Your task to perform on an android device: change notifications settings Image 0: 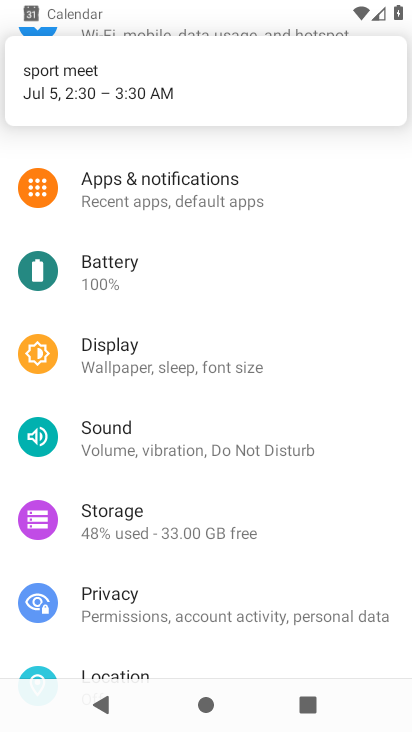
Step 0: drag from (331, 584) to (320, 363)
Your task to perform on an android device: change notifications settings Image 1: 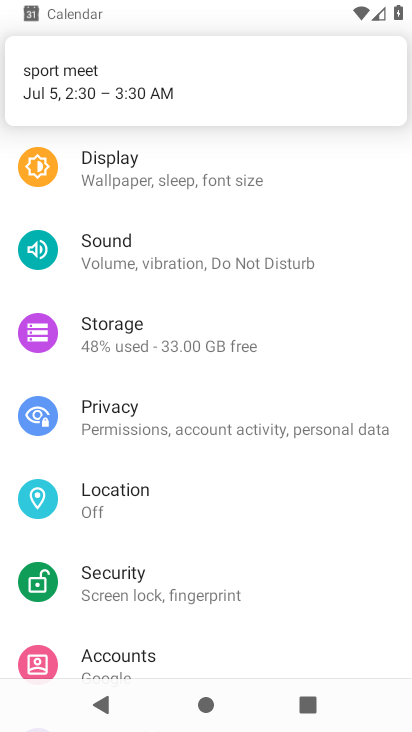
Step 1: drag from (335, 548) to (336, 361)
Your task to perform on an android device: change notifications settings Image 2: 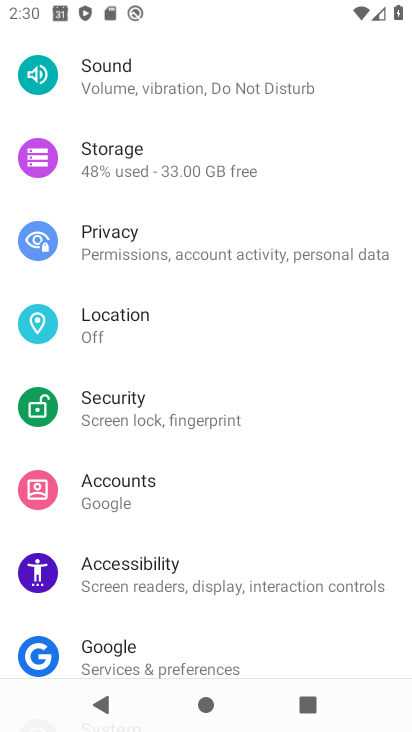
Step 2: drag from (311, 628) to (327, 408)
Your task to perform on an android device: change notifications settings Image 3: 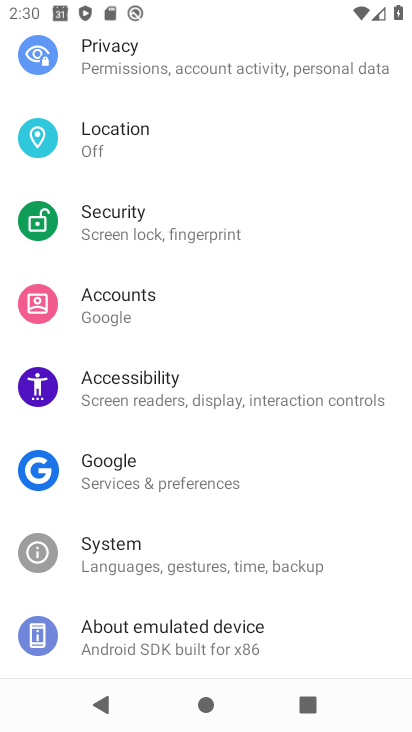
Step 3: drag from (345, 603) to (351, 384)
Your task to perform on an android device: change notifications settings Image 4: 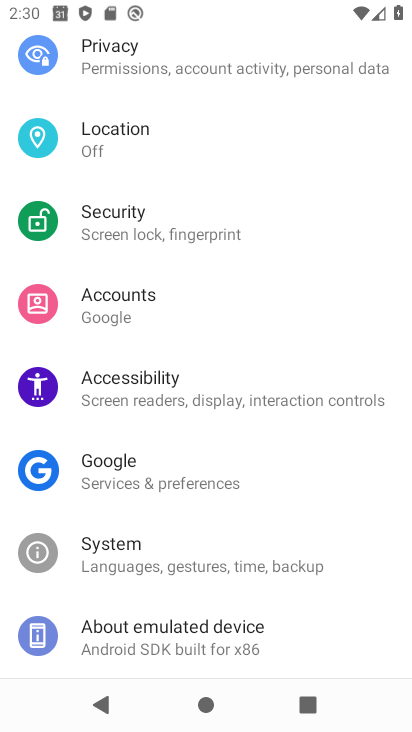
Step 4: drag from (342, 619) to (342, 401)
Your task to perform on an android device: change notifications settings Image 5: 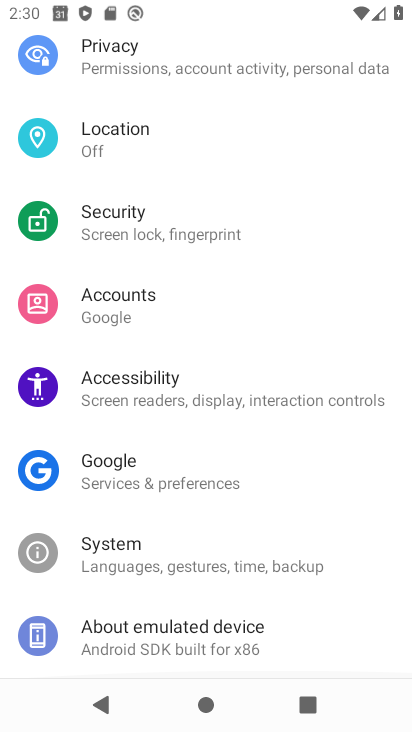
Step 5: drag from (333, 286) to (334, 369)
Your task to perform on an android device: change notifications settings Image 6: 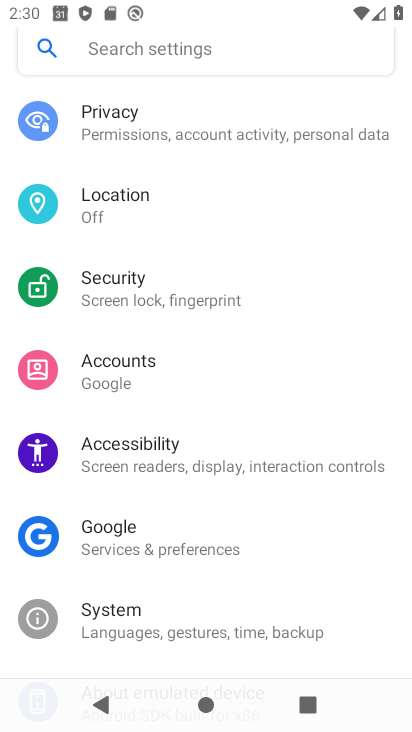
Step 6: drag from (327, 290) to (341, 413)
Your task to perform on an android device: change notifications settings Image 7: 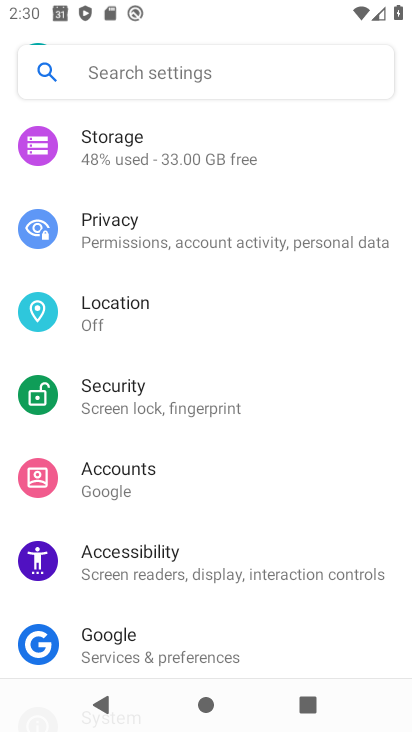
Step 7: drag from (322, 298) to (340, 407)
Your task to perform on an android device: change notifications settings Image 8: 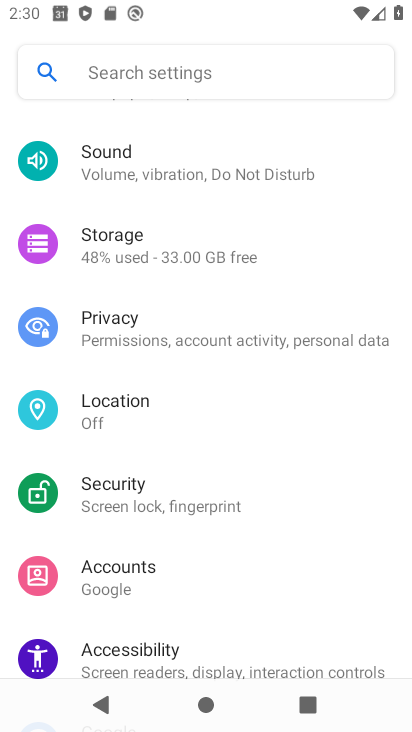
Step 8: drag from (343, 297) to (360, 400)
Your task to perform on an android device: change notifications settings Image 9: 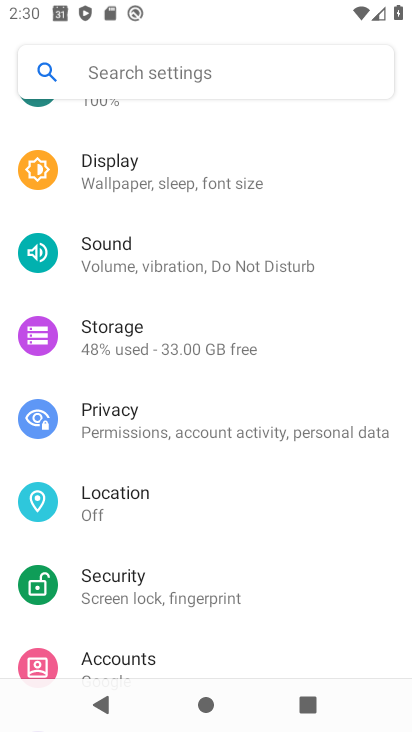
Step 9: drag from (345, 279) to (349, 386)
Your task to perform on an android device: change notifications settings Image 10: 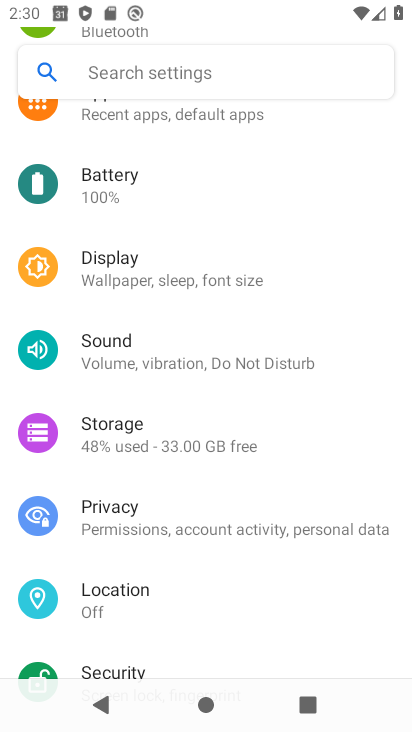
Step 10: drag from (339, 262) to (345, 363)
Your task to perform on an android device: change notifications settings Image 11: 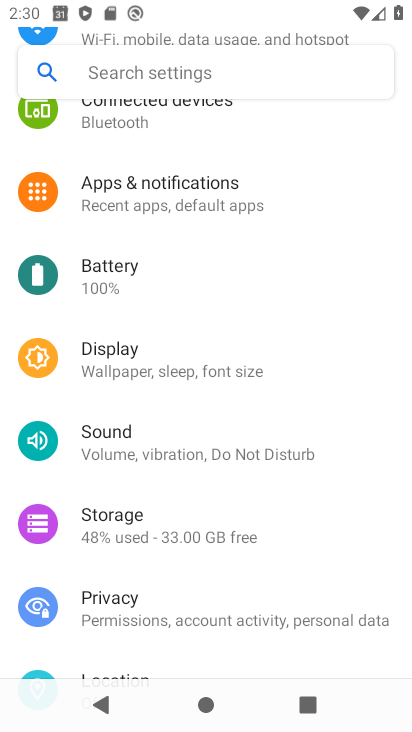
Step 11: drag from (346, 257) to (363, 376)
Your task to perform on an android device: change notifications settings Image 12: 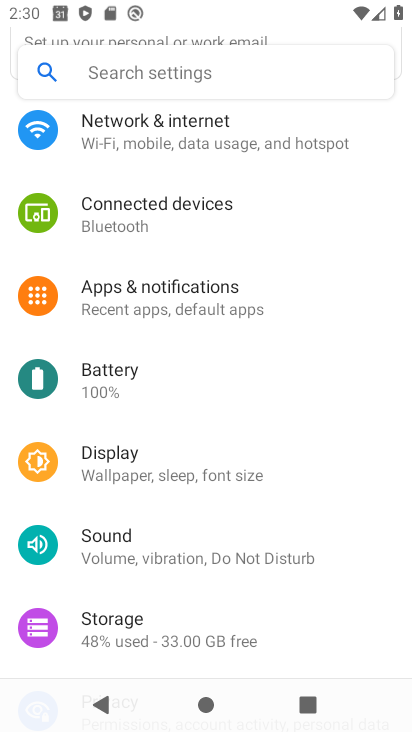
Step 12: drag from (345, 260) to (359, 365)
Your task to perform on an android device: change notifications settings Image 13: 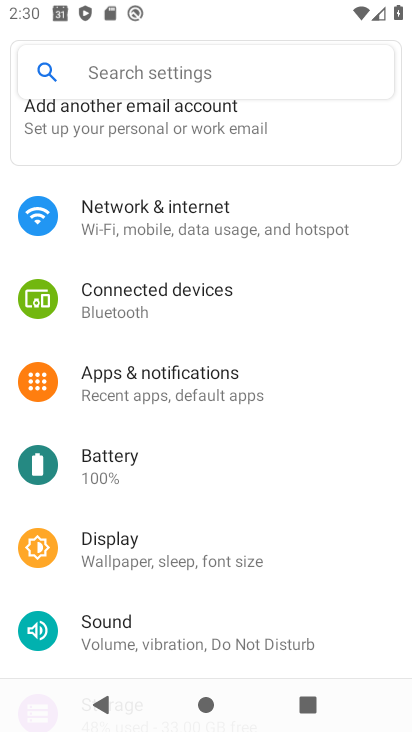
Step 13: click (254, 391)
Your task to perform on an android device: change notifications settings Image 14: 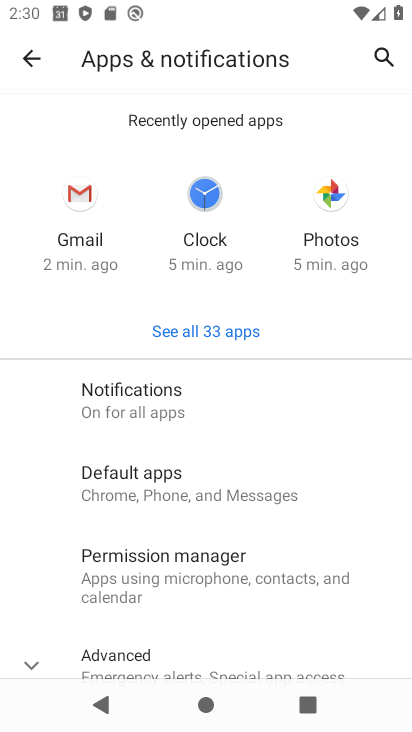
Step 14: click (183, 414)
Your task to perform on an android device: change notifications settings Image 15: 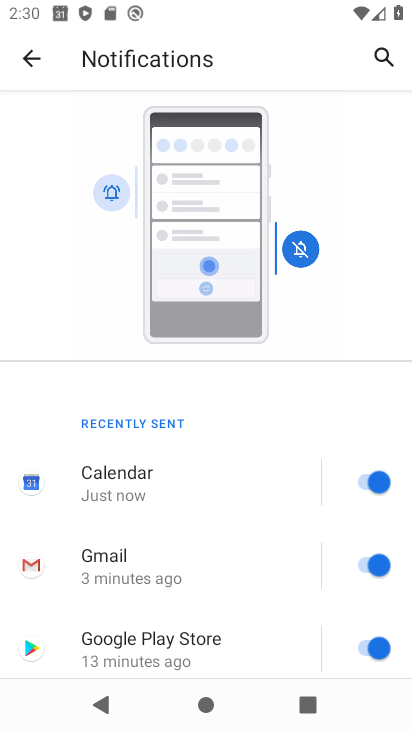
Step 15: drag from (252, 552) to (253, 362)
Your task to perform on an android device: change notifications settings Image 16: 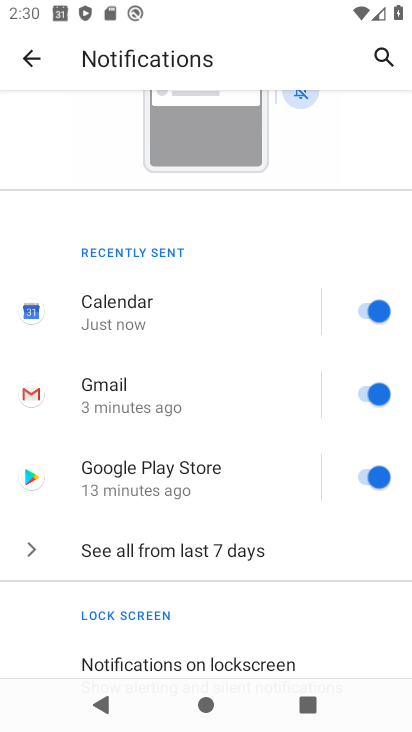
Step 16: drag from (282, 600) to (278, 418)
Your task to perform on an android device: change notifications settings Image 17: 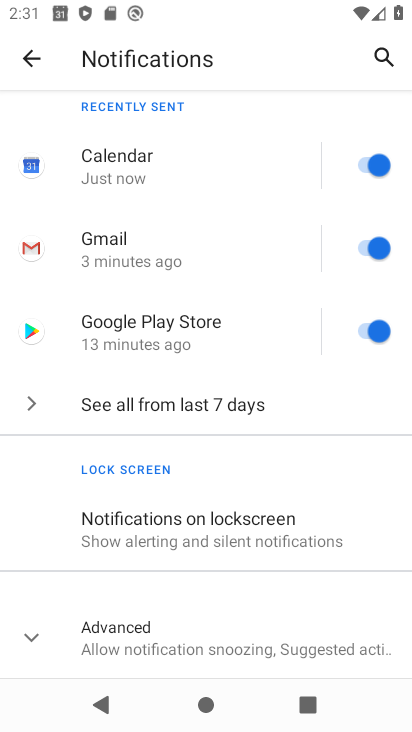
Step 17: drag from (257, 295) to (273, 504)
Your task to perform on an android device: change notifications settings Image 18: 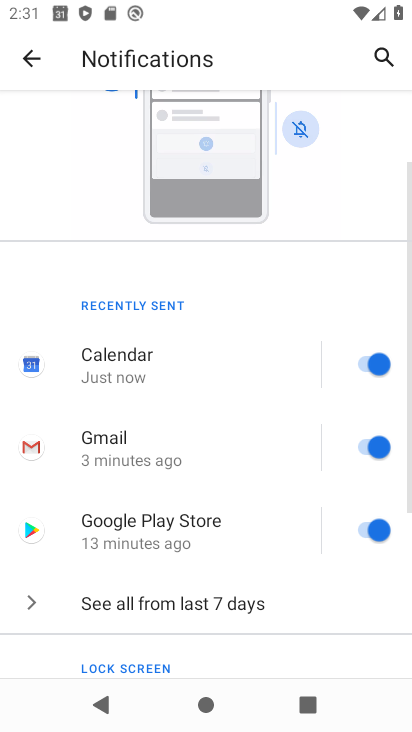
Step 18: click (361, 374)
Your task to perform on an android device: change notifications settings Image 19: 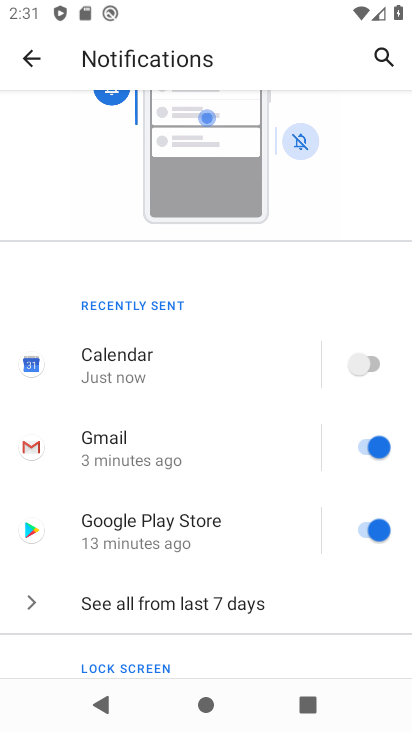
Step 19: click (367, 450)
Your task to perform on an android device: change notifications settings Image 20: 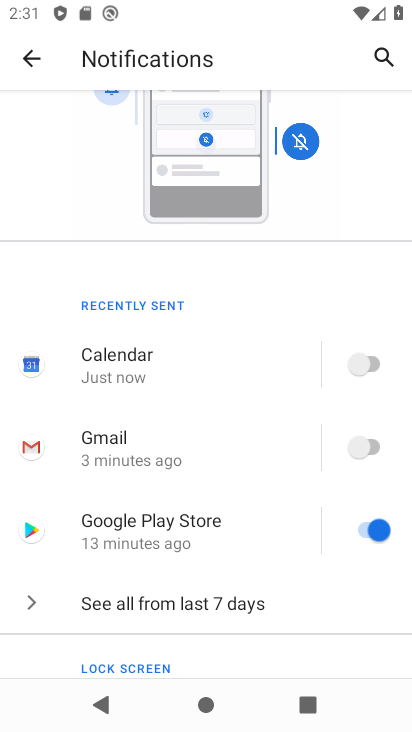
Step 20: click (369, 526)
Your task to perform on an android device: change notifications settings Image 21: 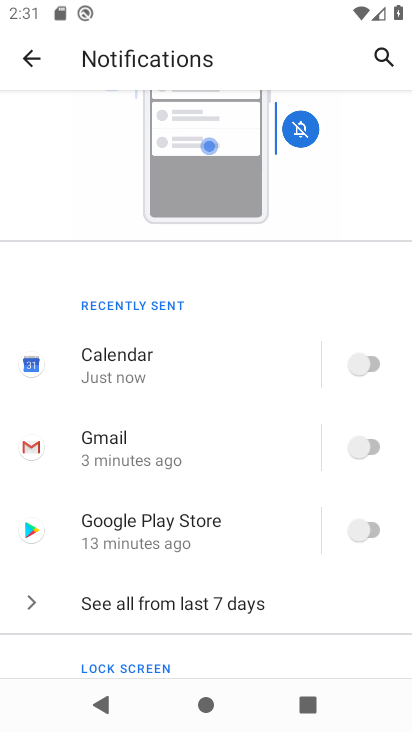
Step 21: task complete